Your task to perform on an android device: Open Google Maps and go to "Timeline" Image 0: 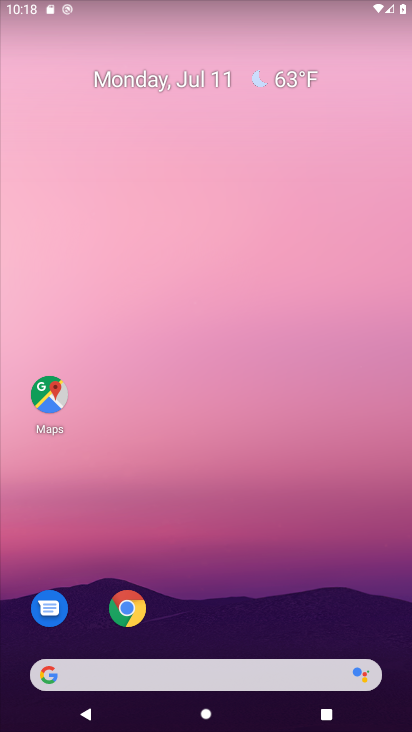
Step 0: click (47, 387)
Your task to perform on an android device: Open Google Maps and go to "Timeline" Image 1: 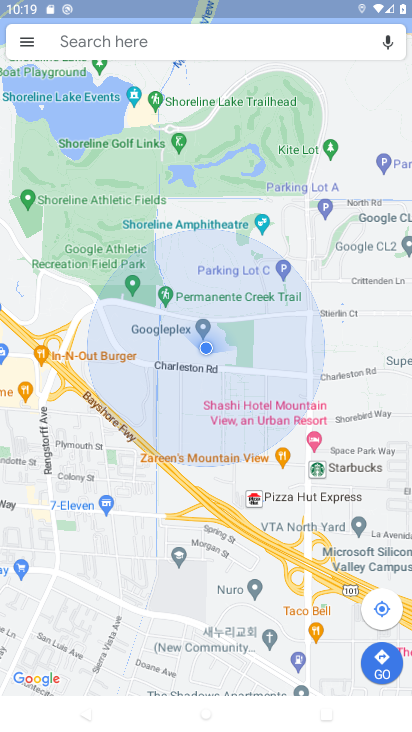
Step 1: click (26, 39)
Your task to perform on an android device: Open Google Maps and go to "Timeline" Image 2: 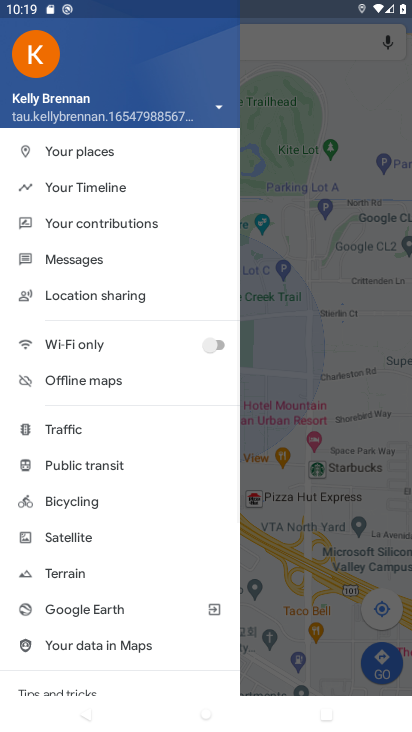
Step 2: click (80, 187)
Your task to perform on an android device: Open Google Maps and go to "Timeline" Image 3: 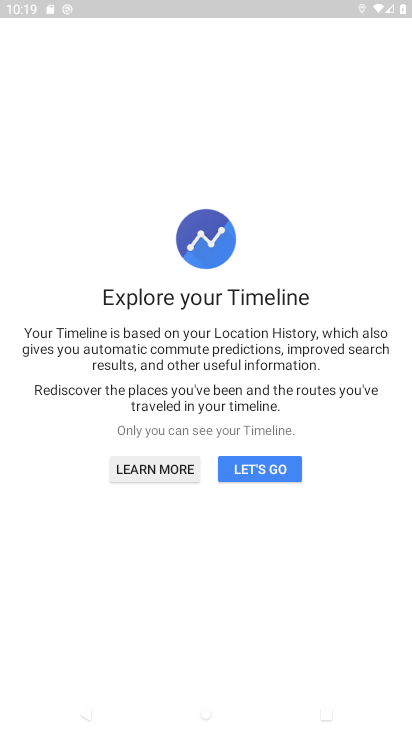
Step 3: click (251, 471)
Your task to perform on an android device: Open Google Maps and go to "Timeline" Image 4: 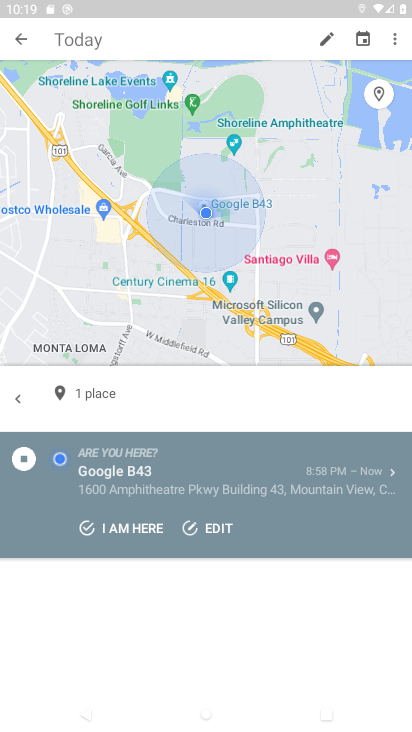
Step 4: task complete